Your task to perform on an android device: Go to Google Image 0: 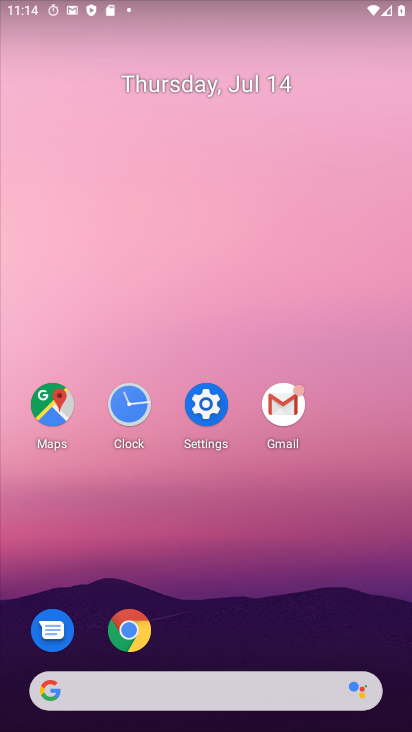
Step 0: drag from (383, 569) to (321, 75)
Your task to perform on an android device: Go to Google Image 1: 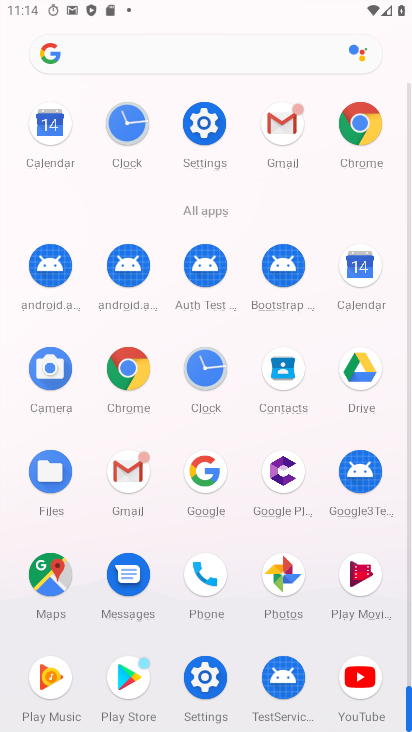
Step 1: click (204, 465)
Your task to perform on an android device: Go to Google Image 2: 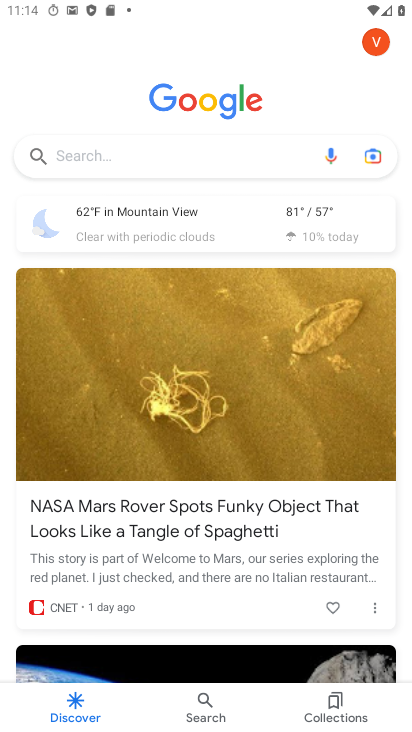
Step 2: task complete